Your task to perform on an android device: turn off airplane mode Image 0: 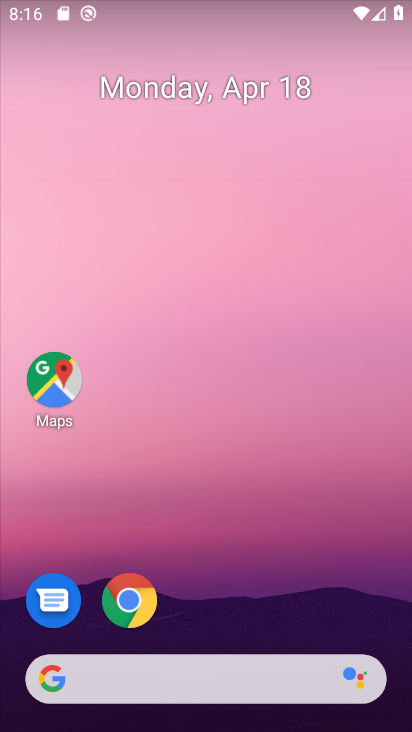
Step 0: drag from (392, 622) to (199, 40)
Your task to perform on an android device: turn off airplane mode Image 1: 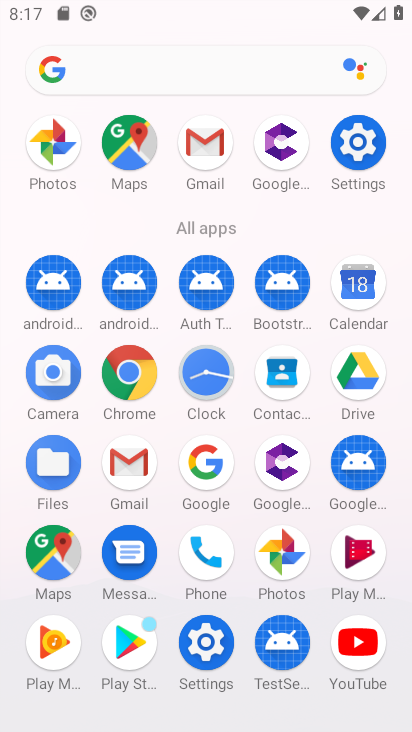
Step 1: drag from (7, 597) to (2, 340)
Your task to perform on an android device: turn off airplane mode Image 2: 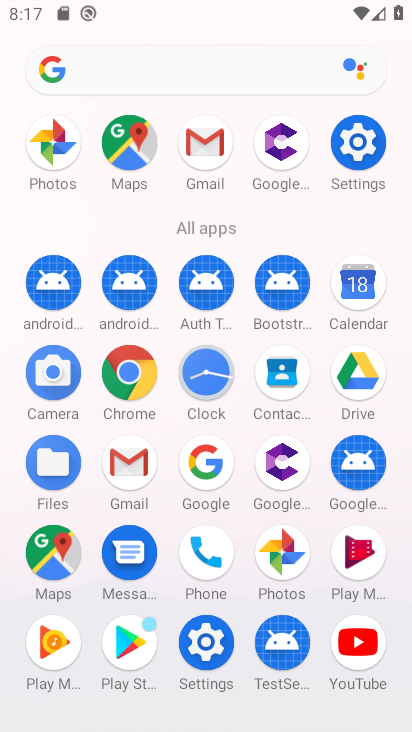
Step 2: click (201, 638)
Your task to perform on an android device: turn off airplane mode Image 3: 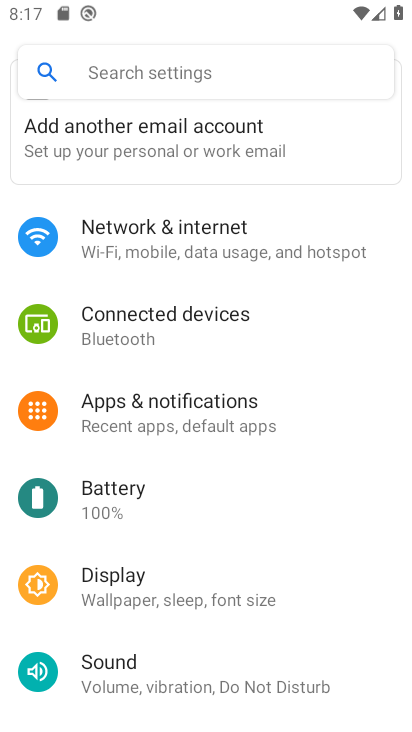
Step 3: click (231, 234)
Your task to perform on an android device: turn off airplane mode Image 4: 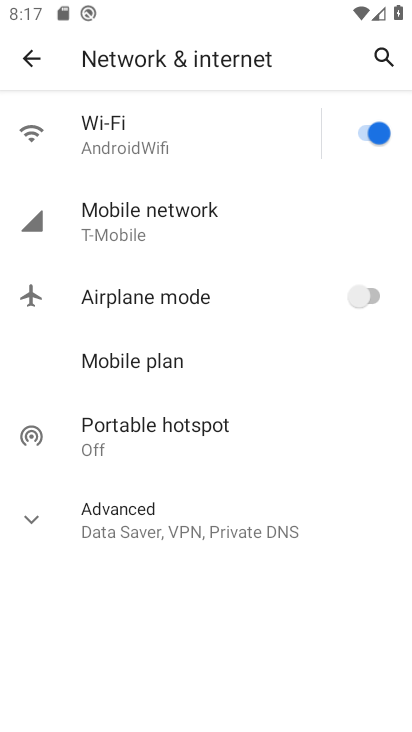
Step 4: task complete